Your task to perform on an android device: find snoozed emails in the gmail app Image 0: 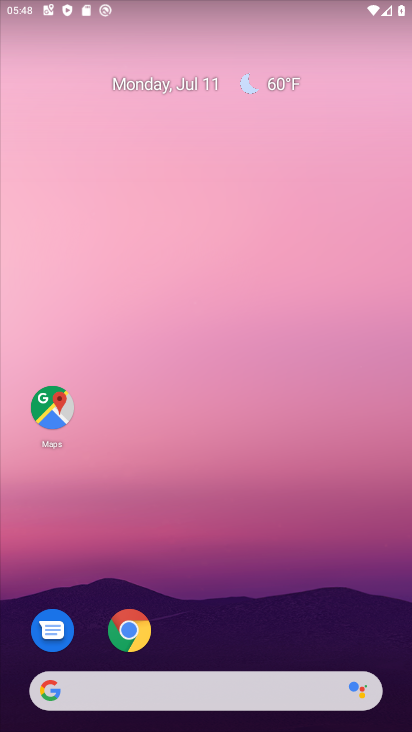
Step 0: drag from (187, 635) to (271, 135)
Your task to perform on an android device: find snoozed emails in the gmail app Image 1: 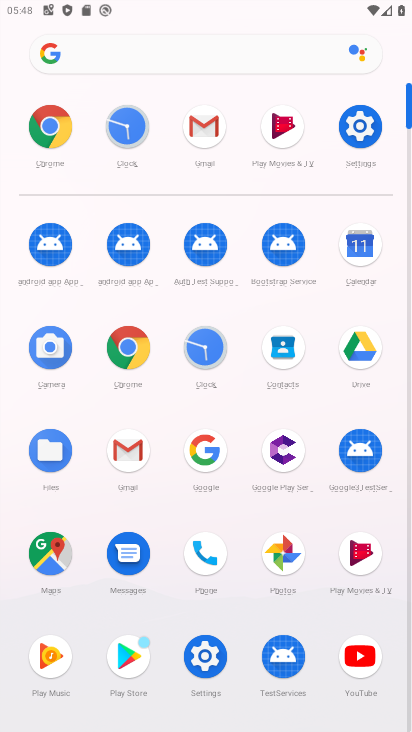
Step 1: click (202, 130)
Your task to perform on an android device: find snoozed emails in the gmail app Image 2: 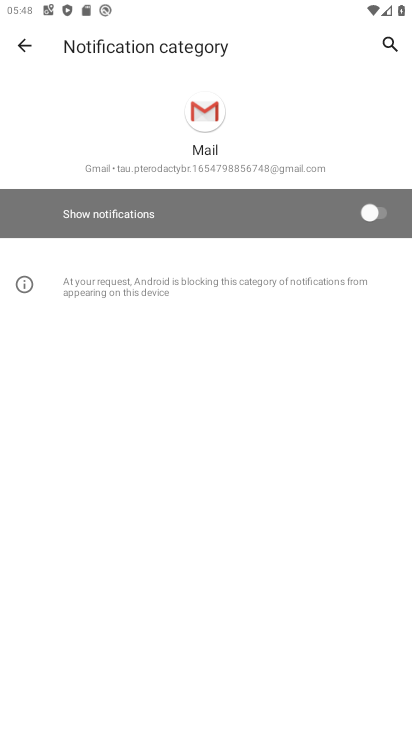
Step 2: click (25, 51)
Your task to perform on an android device: find snoozed emails in the gmail app Image 3: 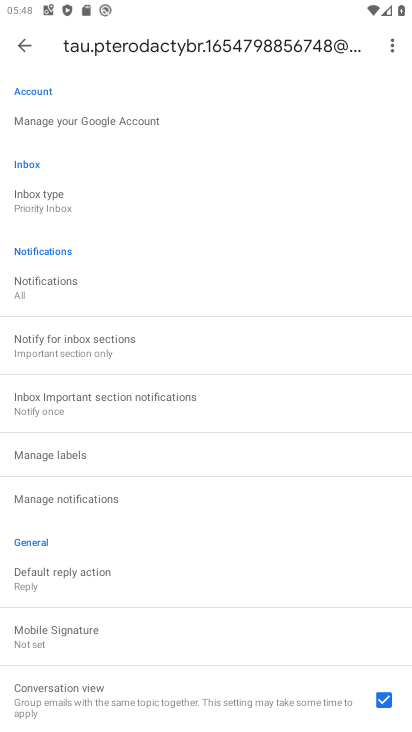
Step 3: click (25, 51)
Your task to perform on an android device: find snoozed emails in the gmail app Image 4: 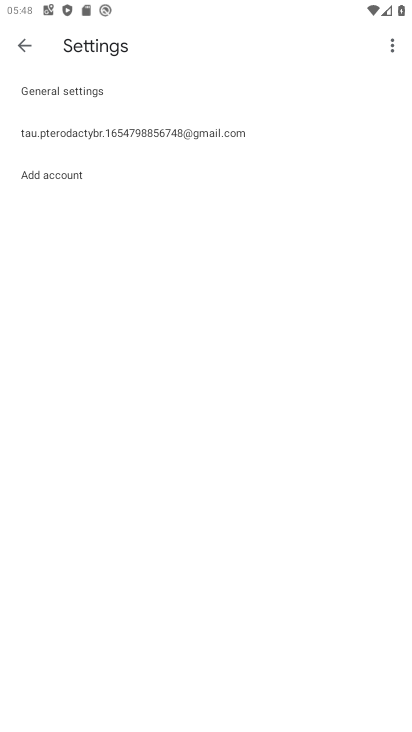
Step 4: click (19, 37)
Your task to perform on an android device: find snoozed emails in the gmail app Image 5: 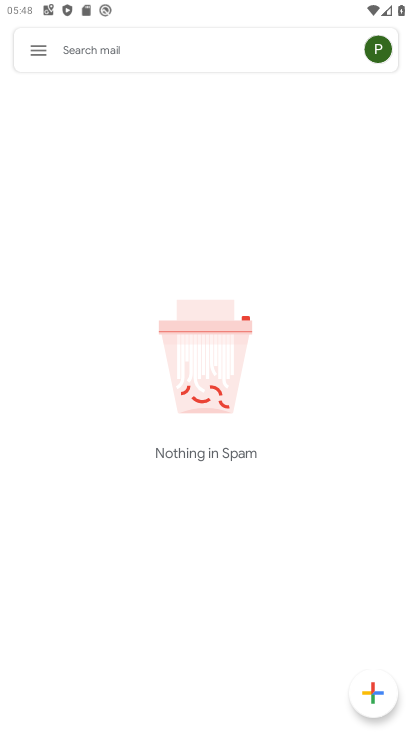
Step 5: click (38, 53)
Your task to perform on an android device: find snoozed emails in the gmail app Image 6: 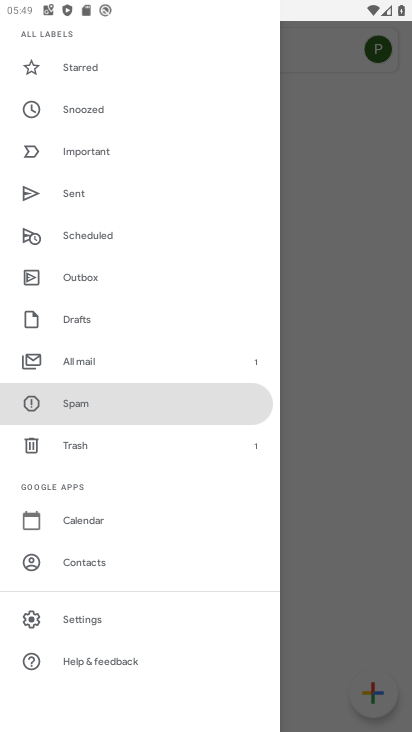
Step 6: click (97, 114)
Your task to perform on an android device: find snoozed emails in the gmail app Image 7: 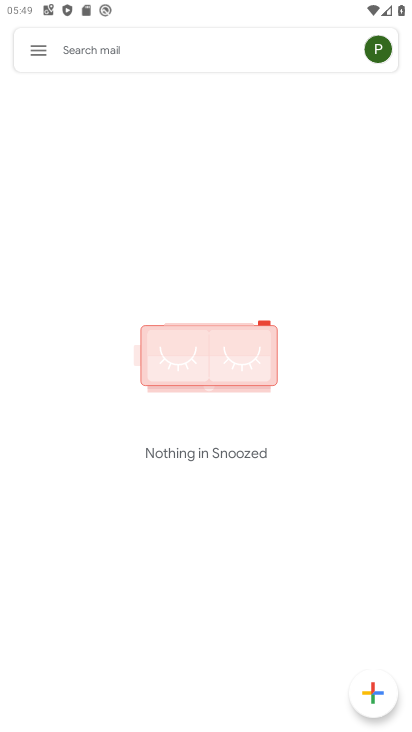
Step 7: task complete